Your task to perform on an android device: Add "asus rog" to the cart on walmart, then select checkout. Image 0: 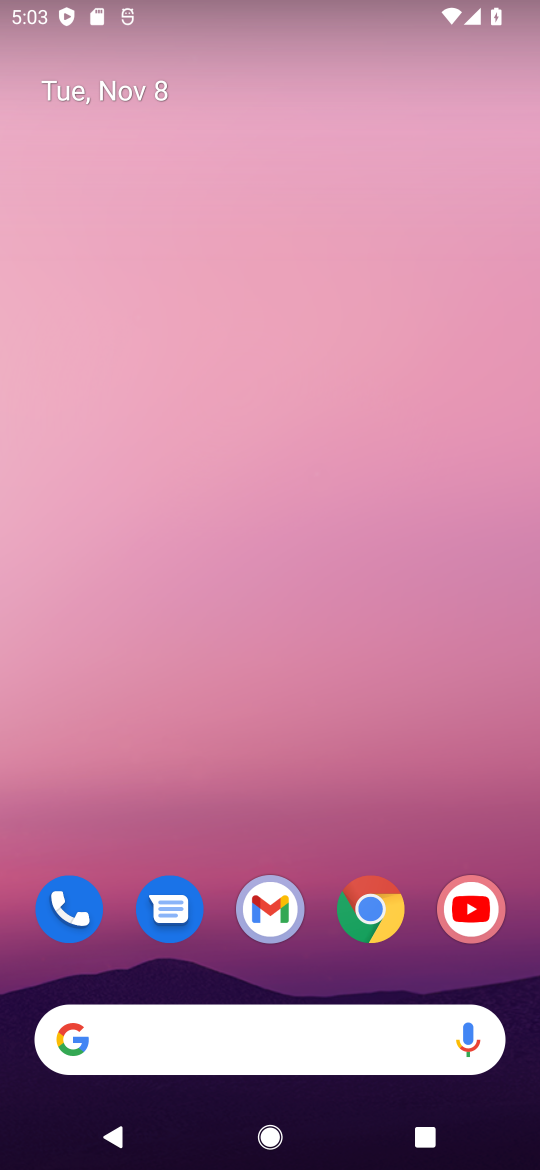
Step 0: click (363, 908)
Your task to perform on an android device: Add "asus rog" to the cart on walmart, then select checkout. Image 1: 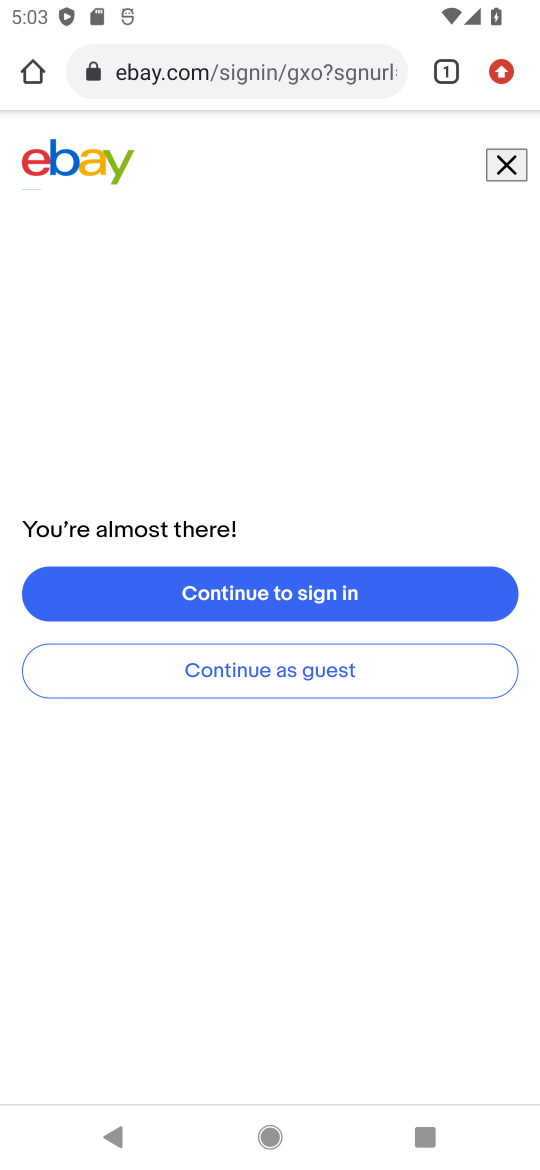
Step 1: click (281, 69)
Your task to perform on an android device: Add "asus rog" to the cart on walmart, then select checkout. Image 2: 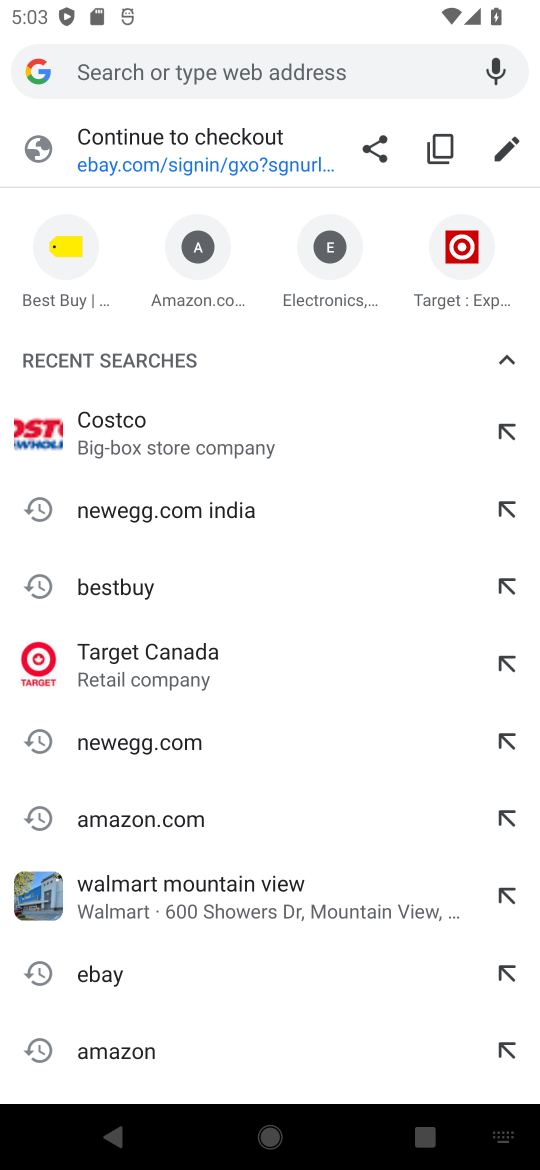
Step 2: drag from (466, 256) to (5, 335)
Your task to perform on an android device: Add "asus rog" to the cart on walmart, then select checkout. Image 3: 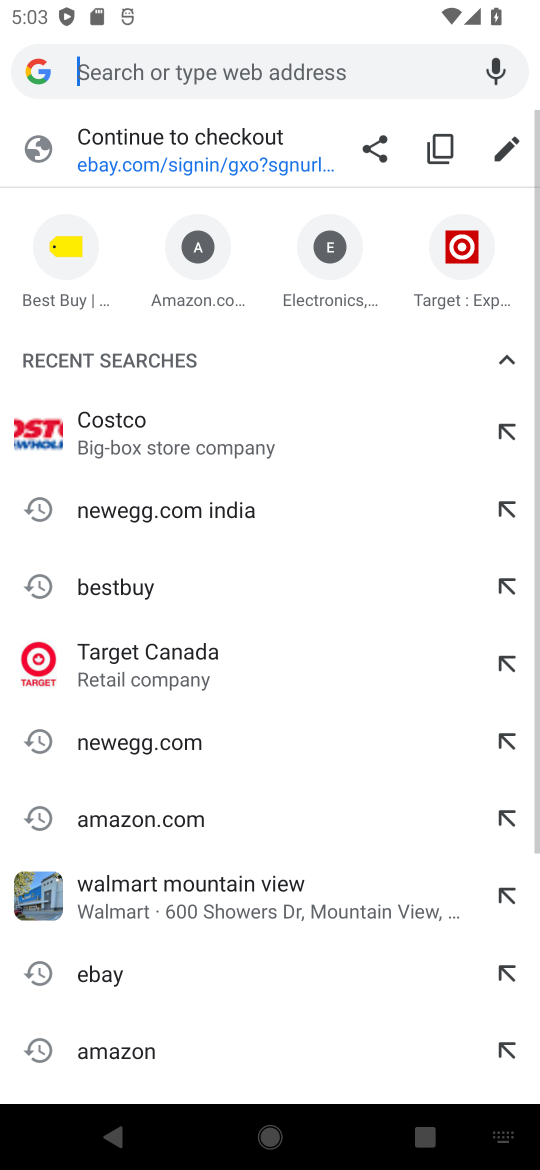
Step 3: drag from (399, 238) to (5, 255)
Your task to perform on an android device: Add "asus rog" to the cart on walmart, then select checkout. Image 4: 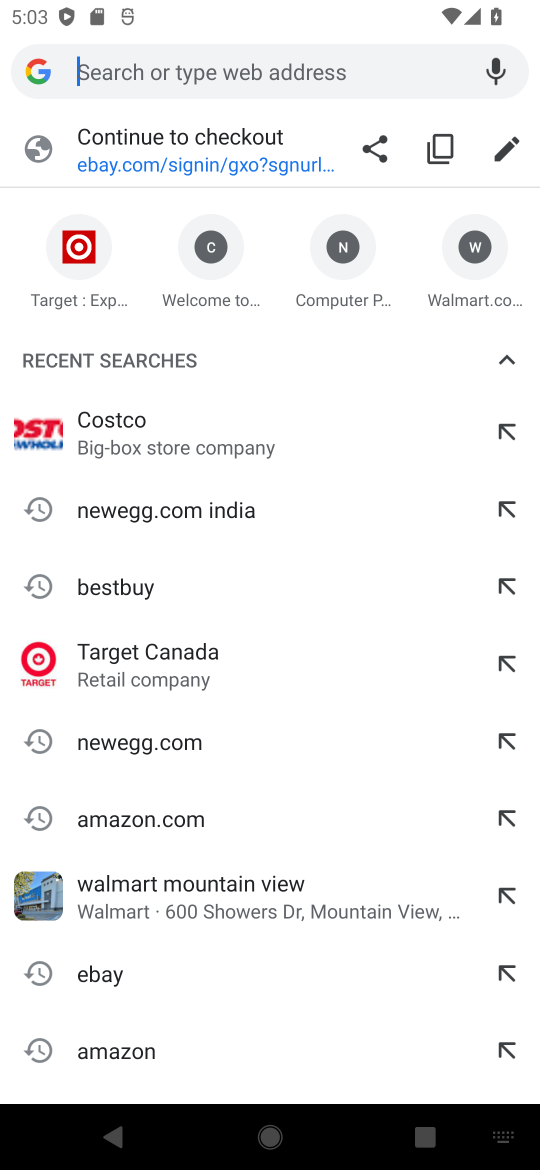
Step 4: click (470, 296)
Your task to perform on an android device: Add "asus rog" to the cart on walmart, then select checkout. Image 5: 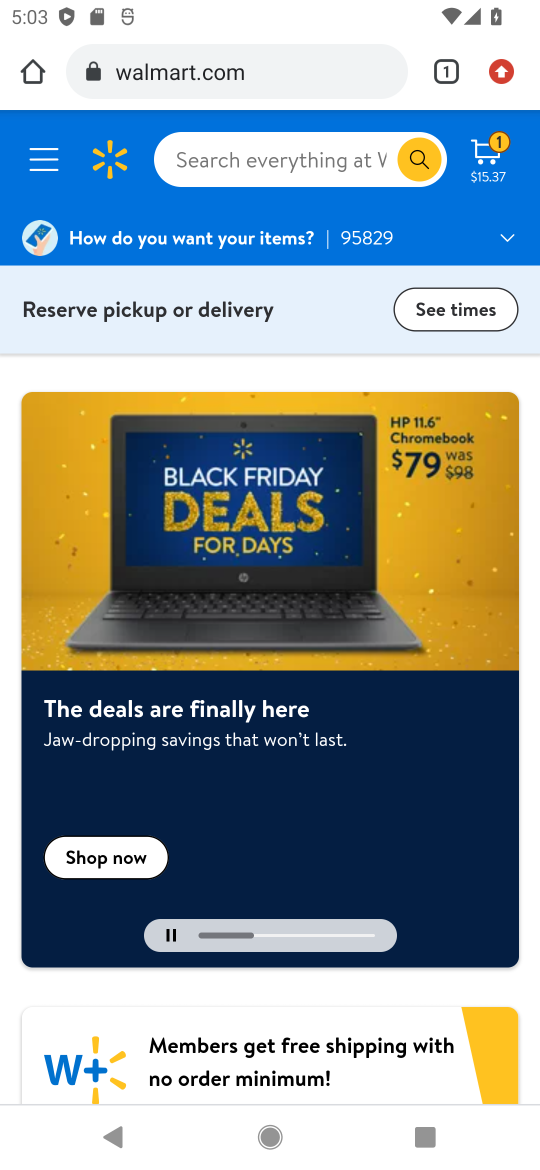
Step 5: click (293, 159)
Your task to perform on an android device: Add "asus rog" to the cart on walmart, then select checkout. Image 6: 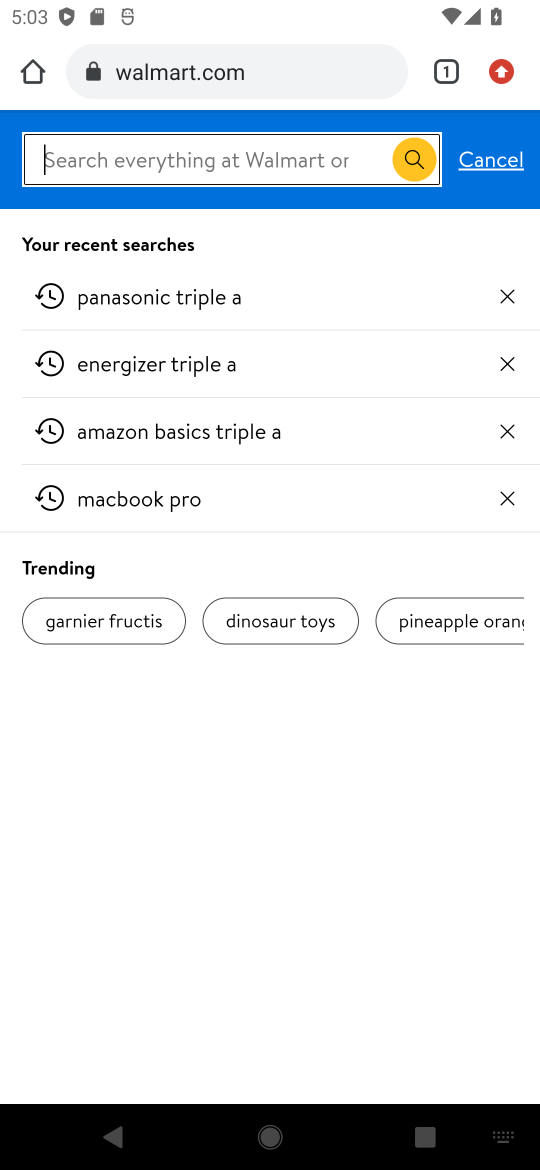
Step 6: type "asus rog"
Your task to perform on an android device: Add "asus rog" to the cart on walmart, then select checkout. Image 7: 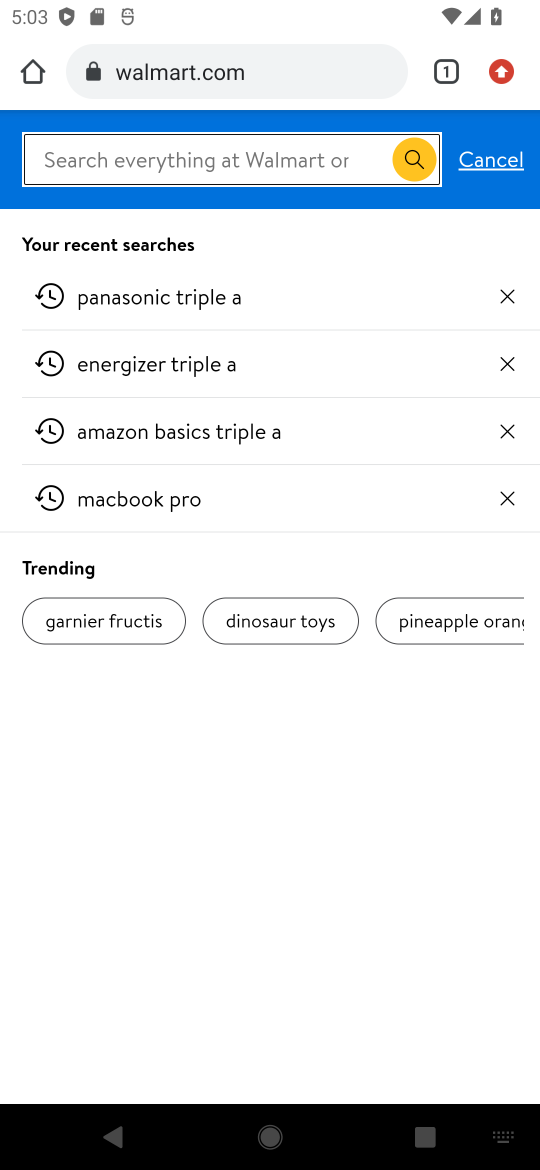
Step 7: press enter
Your task to perform on an android device: Add "asus rog" to the cart on walmart, then select checkout. Image 8: 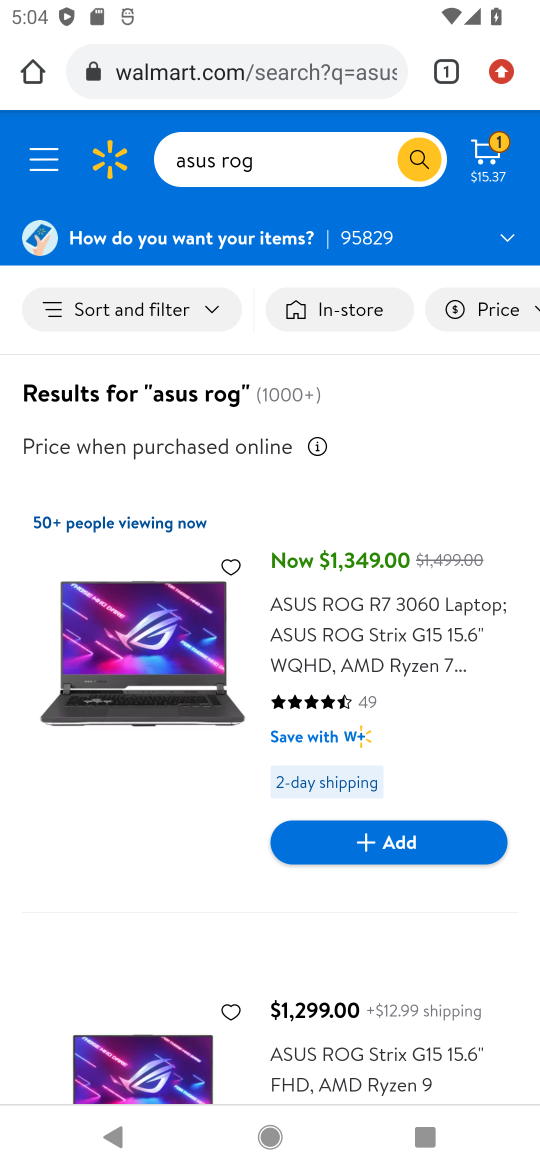
Step 8: click (412, 839)
Your task to perform on an android device: Add "asus rog" to the cart on walmart, then select checkout. Image 9: 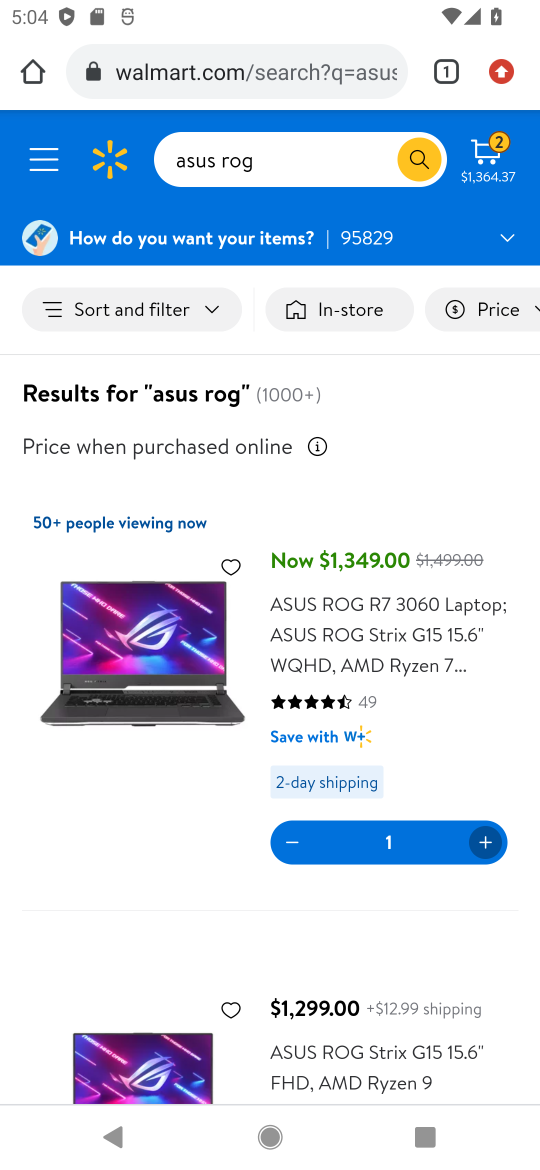
Step 9: click (489, 147)
Your task to perform on an android device: Add "asus rog" to the cart on walmart, then select checkout. Image 10: 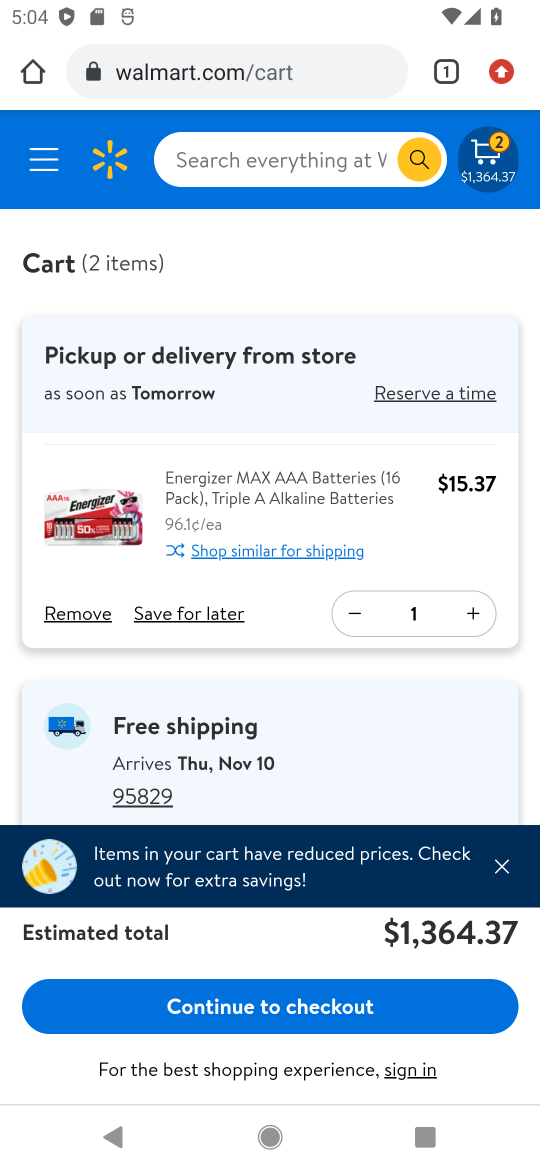
Step 10: click (78, 609)
Your task to perform on an android device: Add "asus rog" to the cart on walmart, then select checkout. Image 11: 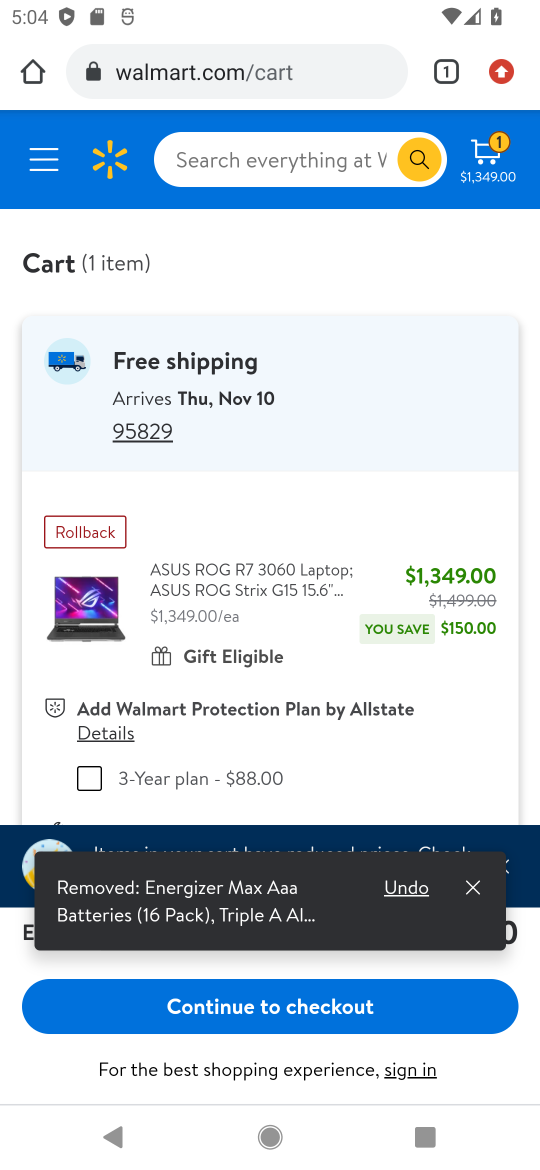
Step 11: click (269, 1009)
Your task to perform on an android device: Add "asus rog" to the cart on walmart, then select checkout. Image 12: 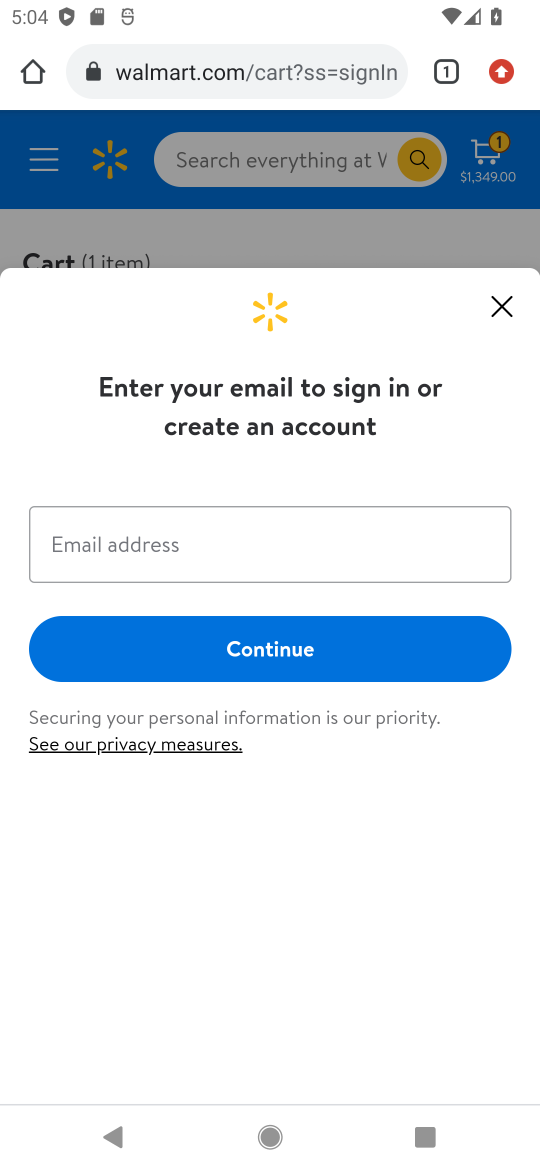
Step 12: task complete